Your task to perform on an android device: turn off notifications in google photos Image 0: 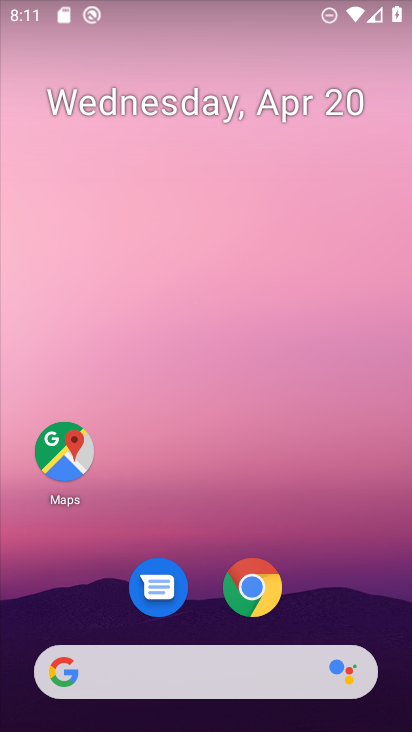
Step 0: drag from (319, 603) to (124, 0)
Your task to perform on an android device: turn off notifications in google photos Image 1: 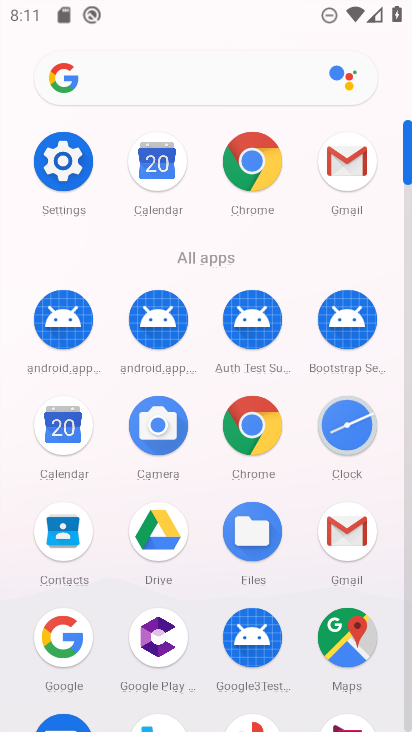
Step 1: click (239, 725)
Your task to perform on an android device: turn off notifications in google photos Image 2: 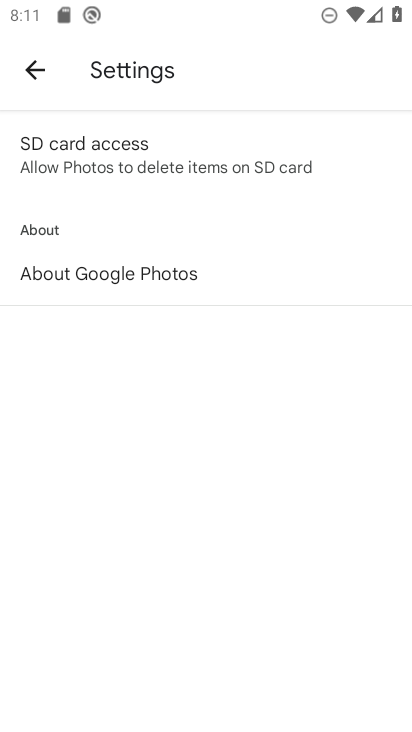
Step 2: click (25, 62)
Your task to perform on an android device: turn off notifications in google photos Image 3: 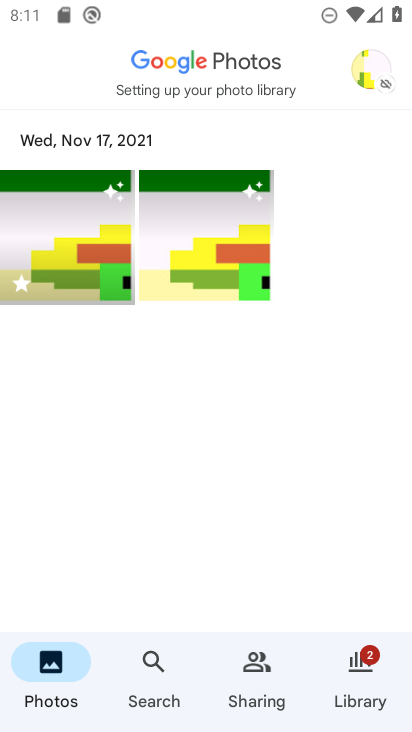
Step 3: click (370, 64)
Your task to perform on an android device: turn off notifications in google photos Image 4: 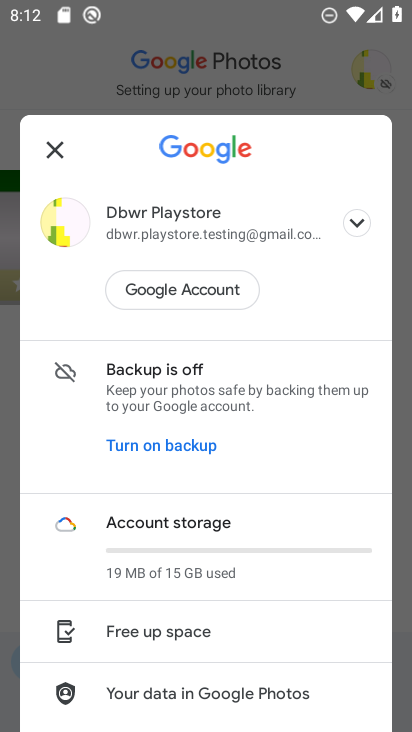
Step 4: drag from (297, 580) to (262, 284)
Your task to perform on an android device: turn off notifications in google photos Image 5: 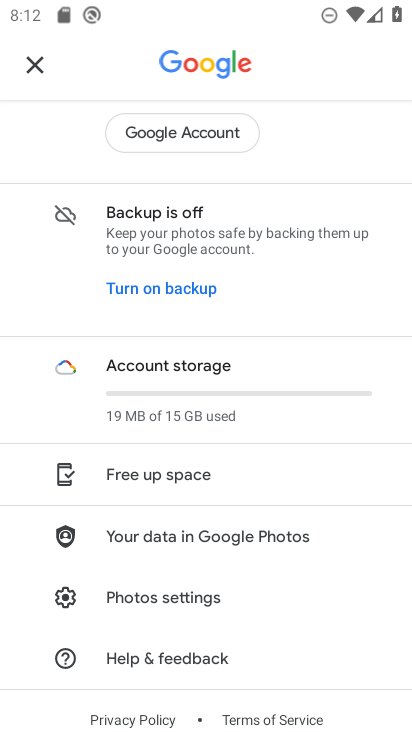
Step 5: click (216, 605)
Your task to perform on an android device: turn off notifications in google photos Image 6: 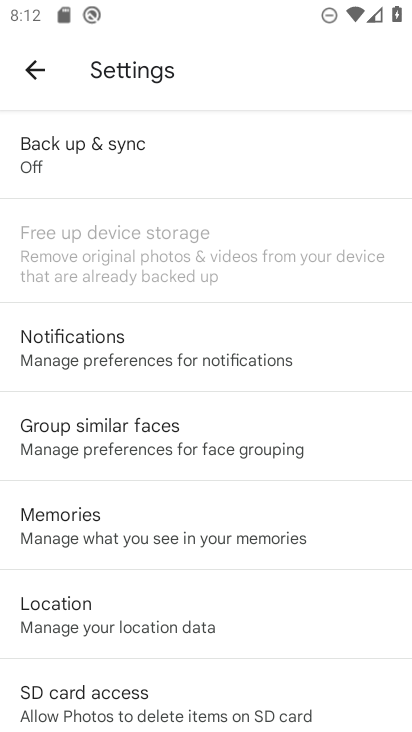
Step 6: click (128, 380)
Your task to perform on an android device: turn off notifications in google photos Image 7: 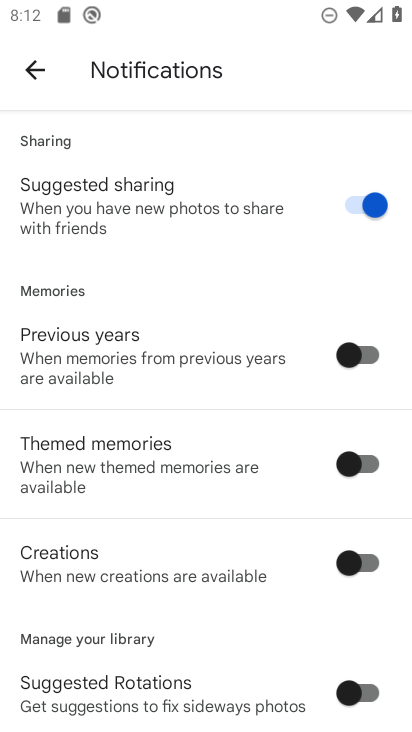
Step 7: click (131, 210)
Your task to perform on an android device: turn off notifications in google photos Image 8: 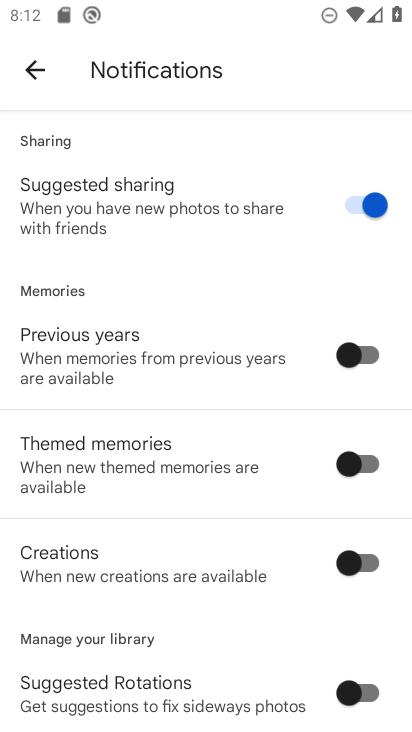
Step 8: task complete